Your task to perform on an android device: open chrome and create a bookmark for the current page Image 0: 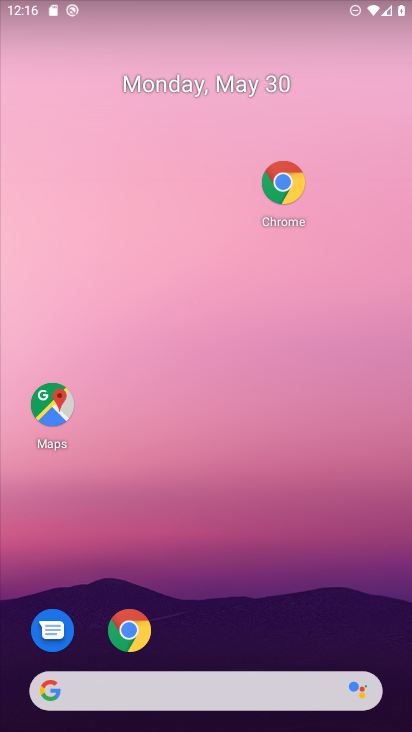
Step 0: drag from (287, 633) to (213, 101)
Your task to perform on an android device: open chrome and create a bookmark for the current page Image 1: 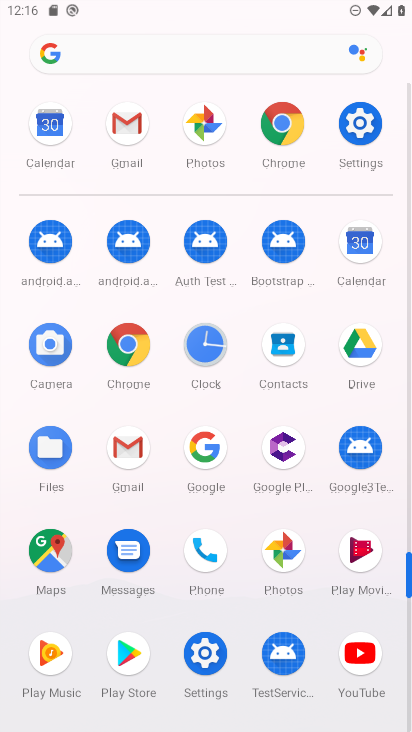
Step 1: click (286, 120)
Your task to perform on an android device: open chrome and create a bookmark for the current page Image 2: 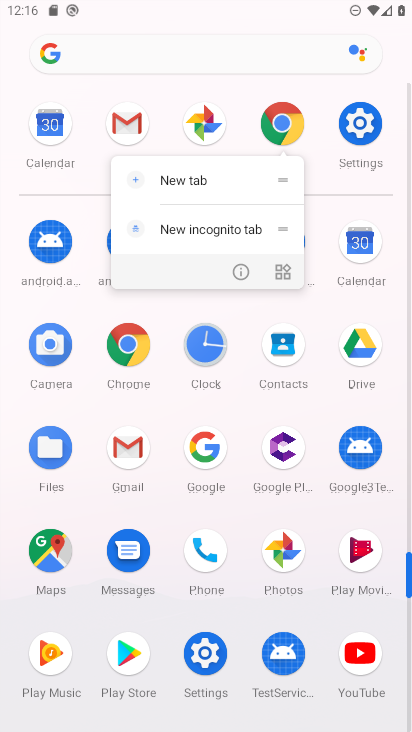
Step 2: click (193, 174)
Your task to perform on an android device: open chrome and create a bookmark for the current page Image 3: 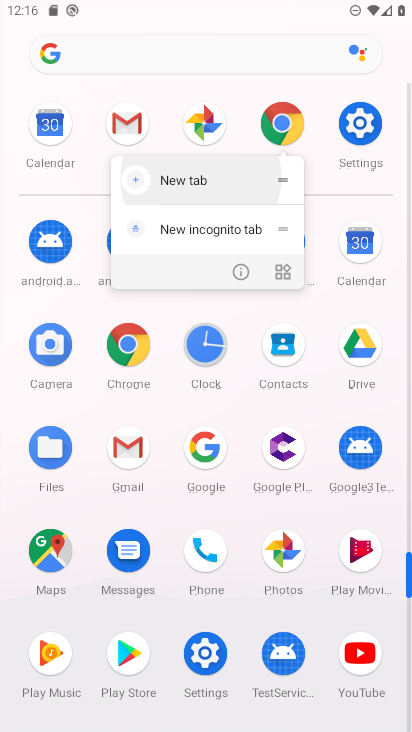
Step 3: click (193, 174)
Your task to perform on an android device: open chrome and create a bookmark for the current page Image 4: 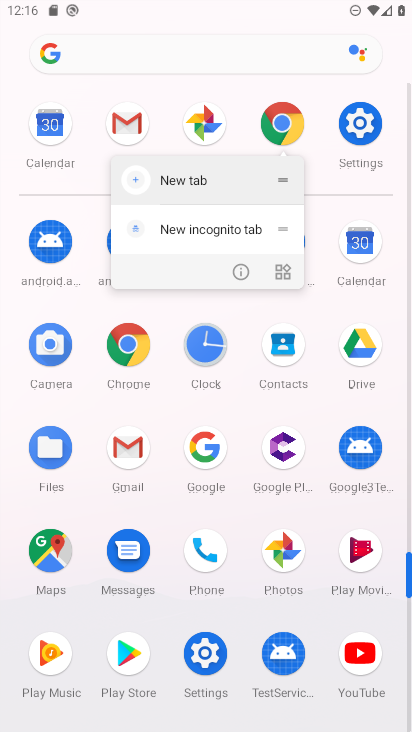
Step 4: click (193, 174)
Your task to perform on an android device: open chrome and create a bookmark for the current page Image 5: 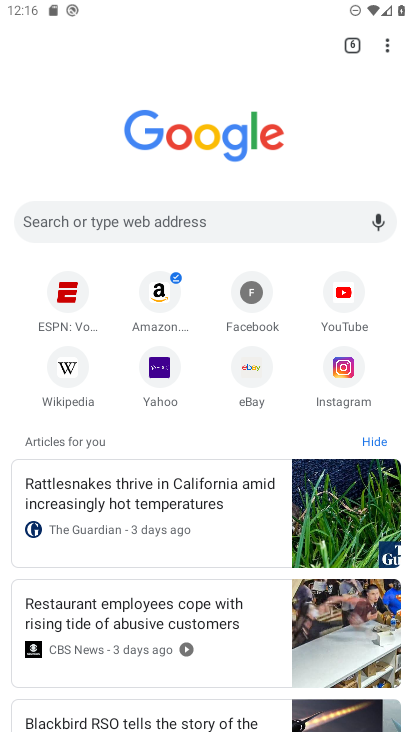
Step 5: click (82, 206)
Your task to perform on an android device: open chrome and create a bookmark for the current page Image 6: 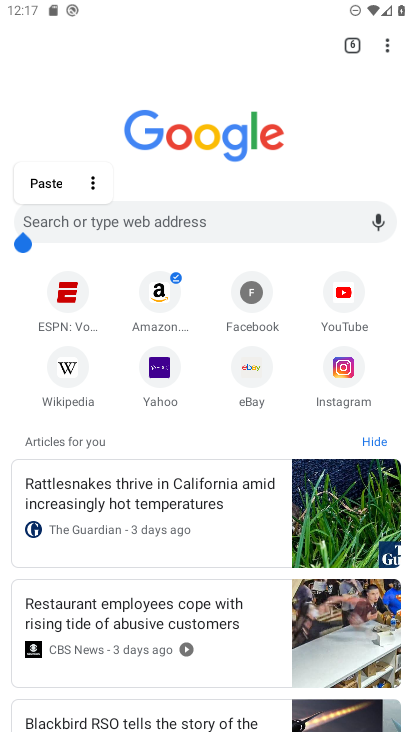
Step 6: click (48, 223)
Your task to perform on an android device: open chrome and create a bookmark for the current page Image 7: 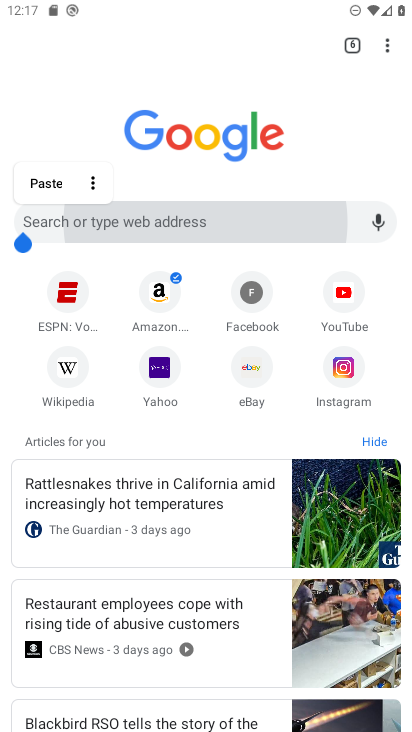
Step 7: click (48, 223)
Your task to perform on an android device: open chrome and create a bookmark for the current page Image 8: 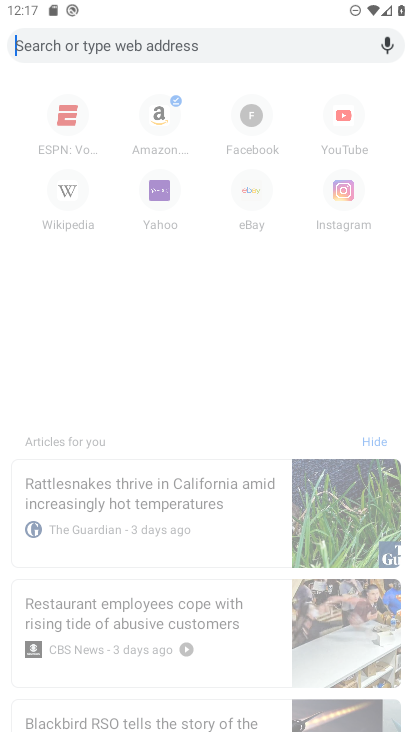
Step 8: click (50, 221)
Your task to perform on an android device: open chrome and create a bookmark for the current page Image 9: 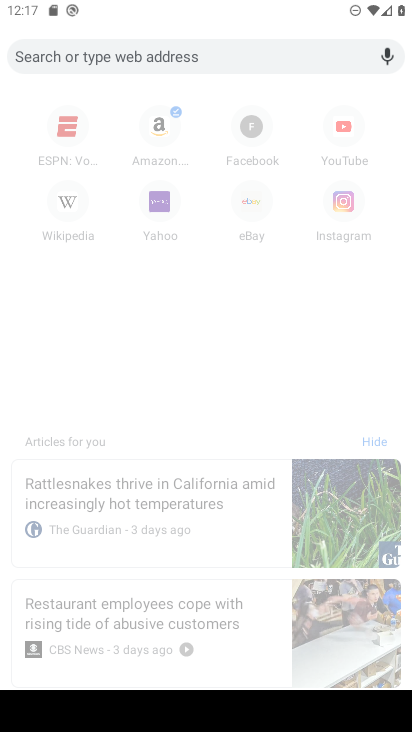
Step 9: click (49, 218)
Your task to perform on an android device: open chrome and create a bookmark for the current page Image 10: 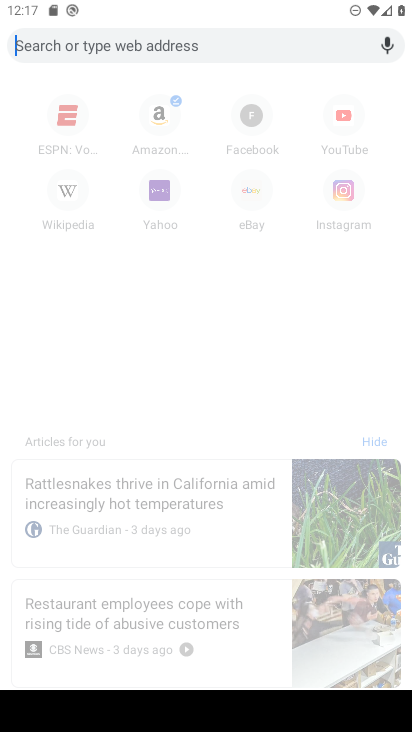
Step 10: click (55, 221)
Your task to perform on an android device: open chrome and create a bookmark for the current page Image 11: 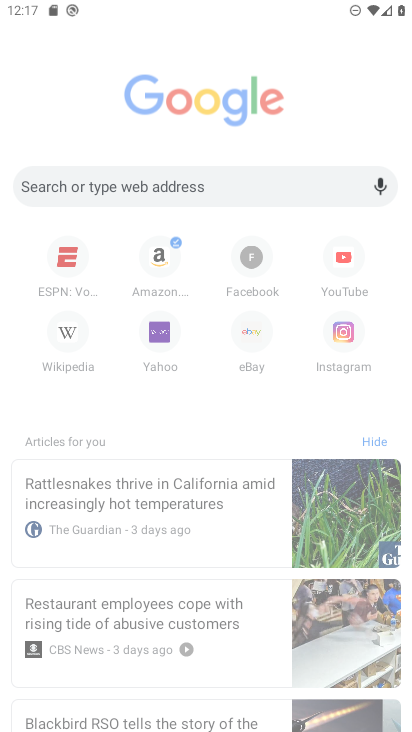
Step 11: click (47, 210)
Your task to perform on an android device: open chrome and create a bookmark for the current page Image 12: 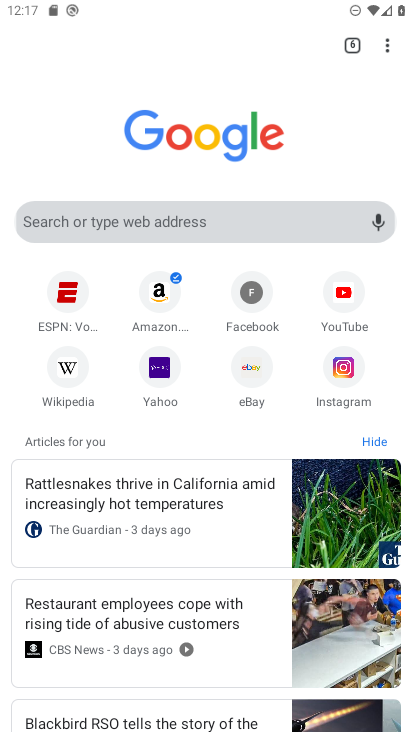
Step 12: click (47, 210)
Your task to perform on an android device: open chrome and create a bookmark for the current page Image 13: 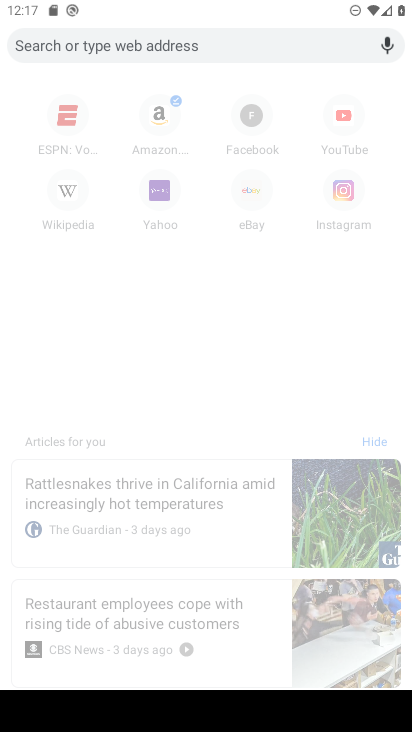
Step 13: type "www.mrityu.cxom"
Your task to perform on an android device: open chrome and create a bookmark for the current page Image 14: 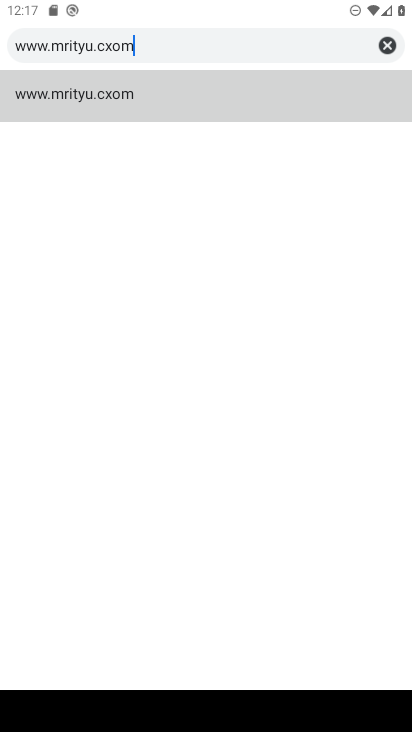
Step 14: click (100, 93)
Your task to perform on an android device: open chrome and create a bookmark for the current page Image 15: 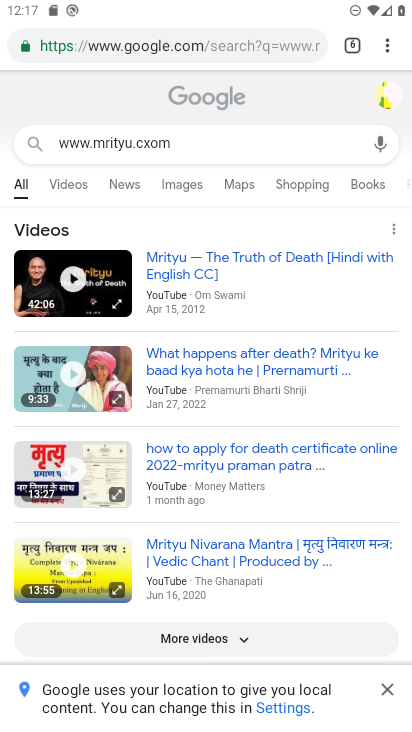
Step 15: drag from (388, 47) to (248, 42)
Your task to perform on an android device: open chrome and create a bookmark for the current page Image 16: 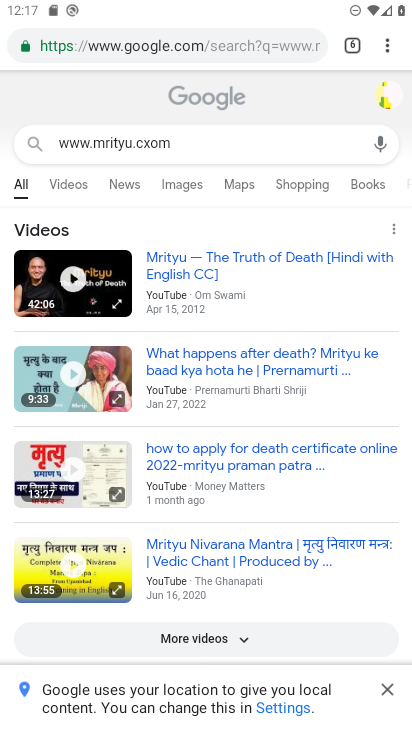
Step 16: click (246, 38)
Your task to perform on an android device: open chrome and create a bookmark for the current page Image 17: 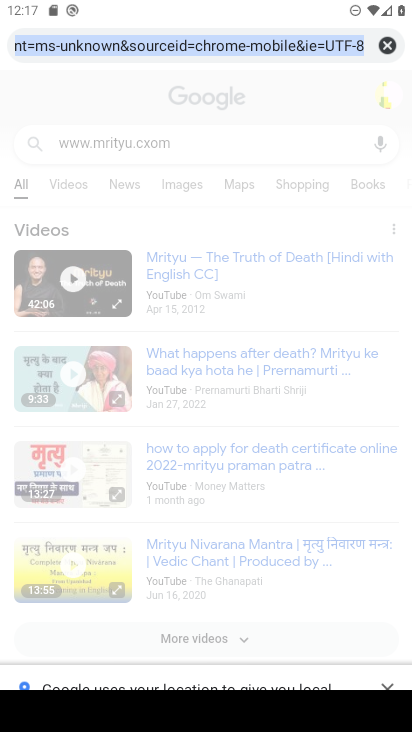
Step 17: task complete